Your task to perform on an android device: Clear the shopping cart on newegg. Add "logitech g502" to the cart on newegg Image 0: 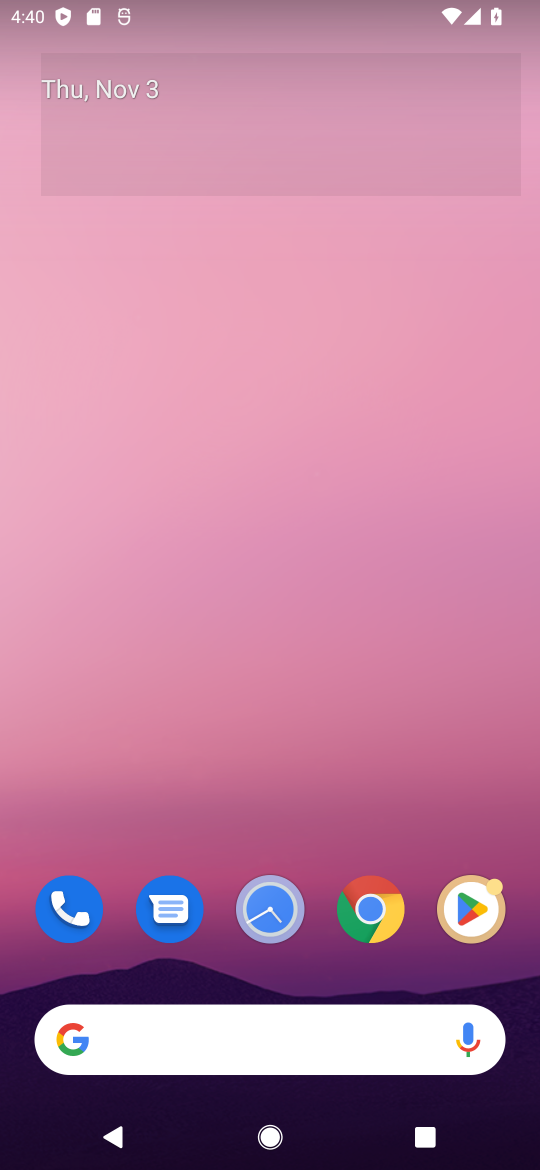
Step 0: click (373, 911)
Your task to perform on an android device: Clear the shopping cart on newegg. Add "logitech g502" to the cart on newegg Image 1: 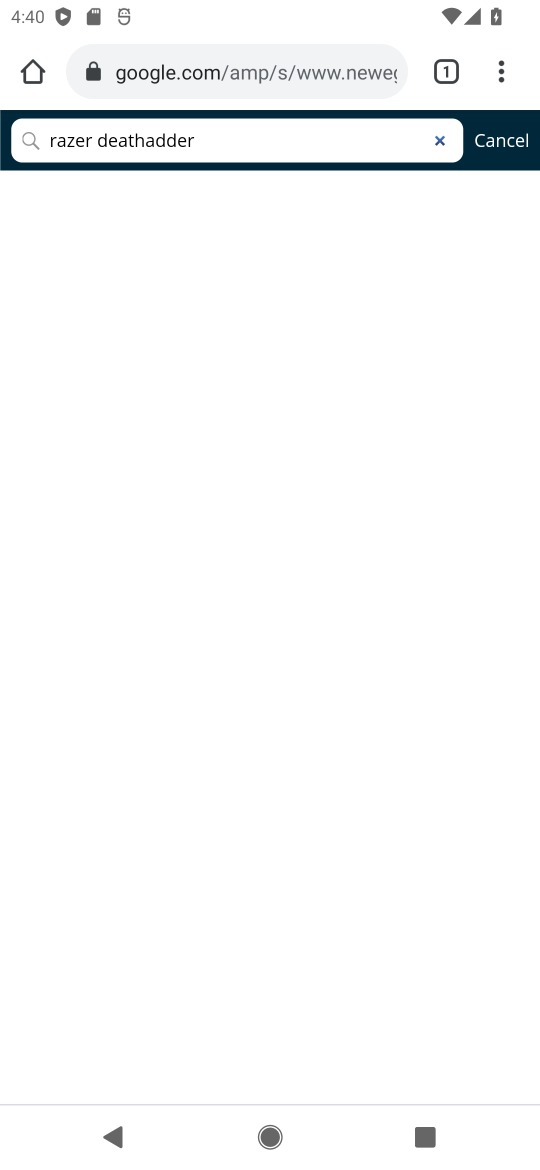
Step 1: click (271, 81)
Your task to perform on an android device: Clear the shopping cart on newegg. Add "logitech g502" to the cart on newegg Image 2: 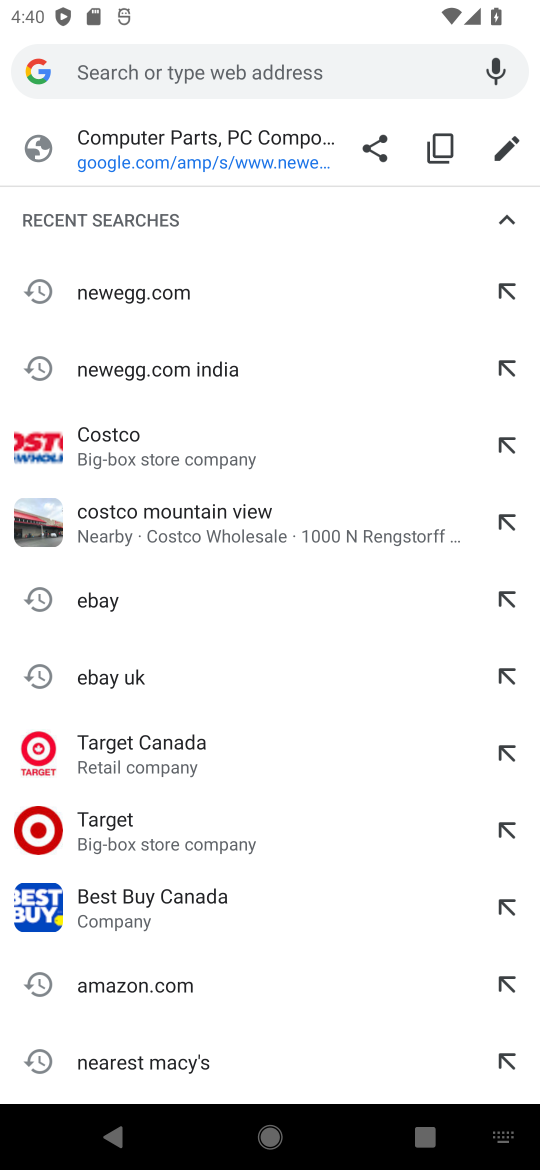
Step 2: type "newegg"
Your task to perform on an android device: Clear the shopping cart on newegg. Add "logitech g502" to the cart on newegg Image 3: 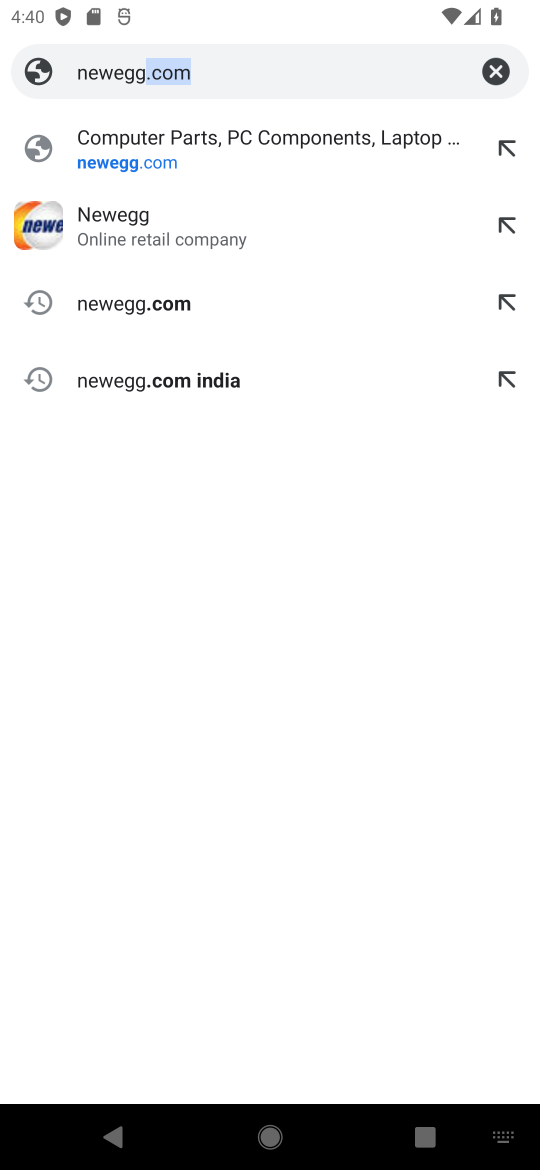
Step 3: click (131, 224)
Your task to perform on an android device: Clear the shopping cart on newegg. Add "logitech g502" to the cart on newegg Image 4: 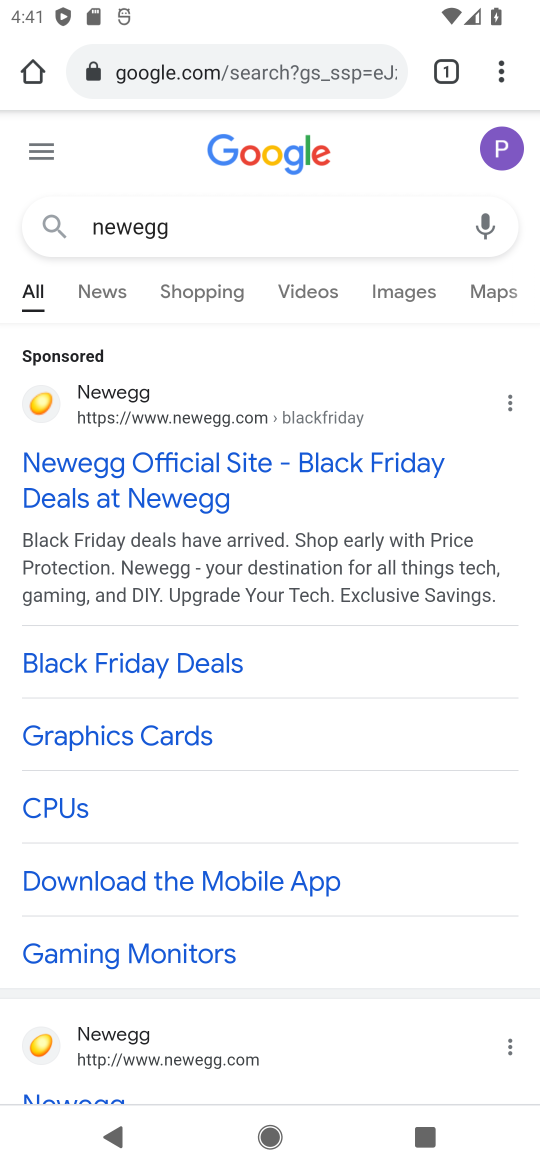
Step 4: click (160, 1049)
Your task to perform on an android device: Clear the shopping cart on newegg. Add "logitech g502" to the cart on newegg Image 5: 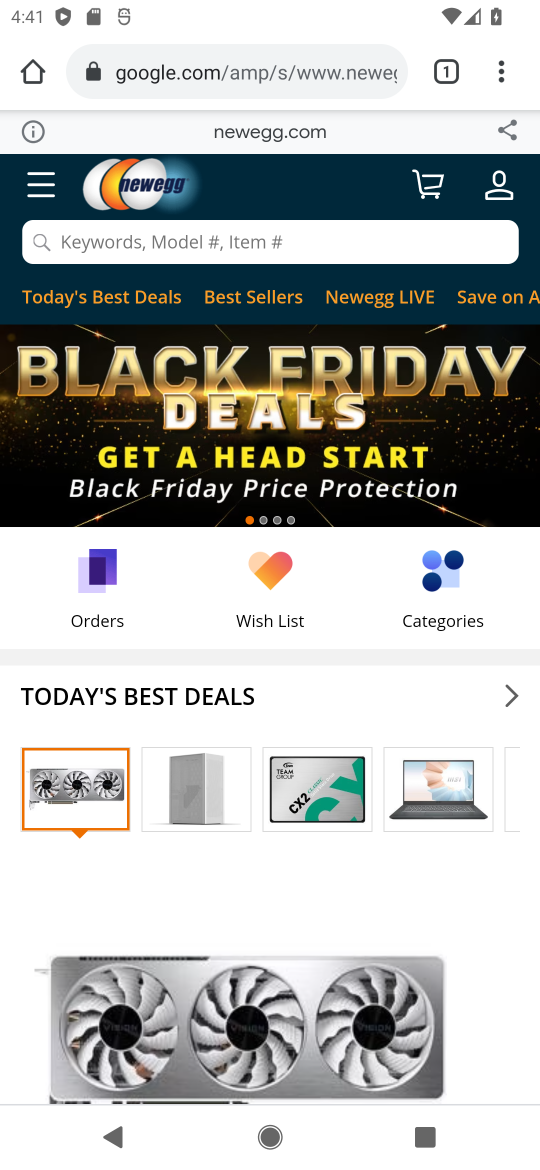
Step 5: click (434, 193)
Your task to perform on an android device: Clear the shopping cart on newegg. Add "logitech g502" to the cart on newegg Image 6: 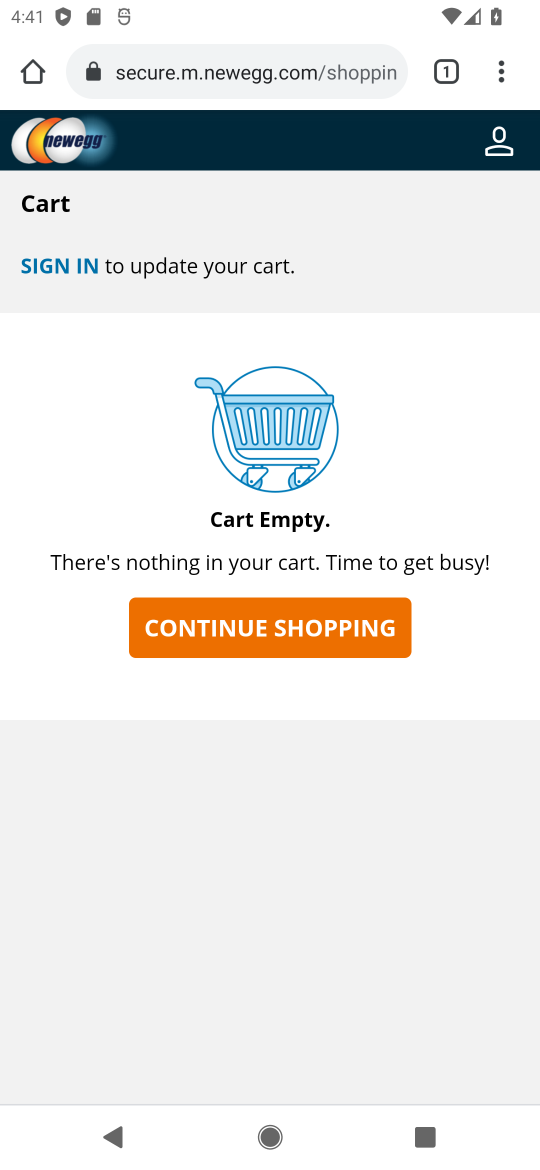
Step 6: click (285, 648)
Your task to perform on an android device: Clear the shopping cart on newegg. Add "logitech g502" to the cart on newegg Image 7: 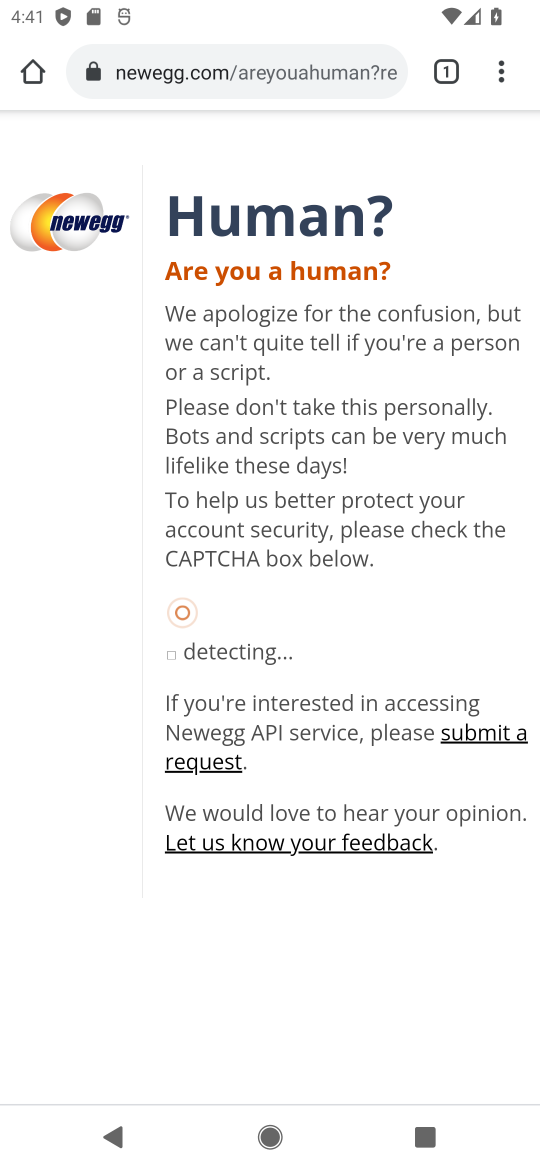
Step 7: task complete